Your task to perform on an android device: open a bookmark in the chrome app Image 0: 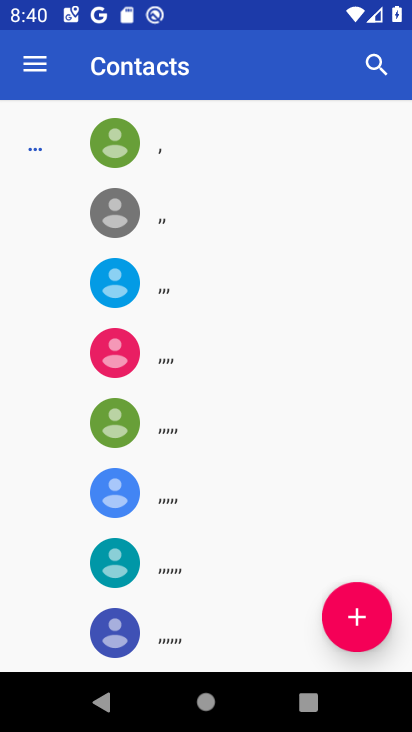
Step 0: press home button
Your task to perform on an android device: open a bookmark in the chrome app Image 1: 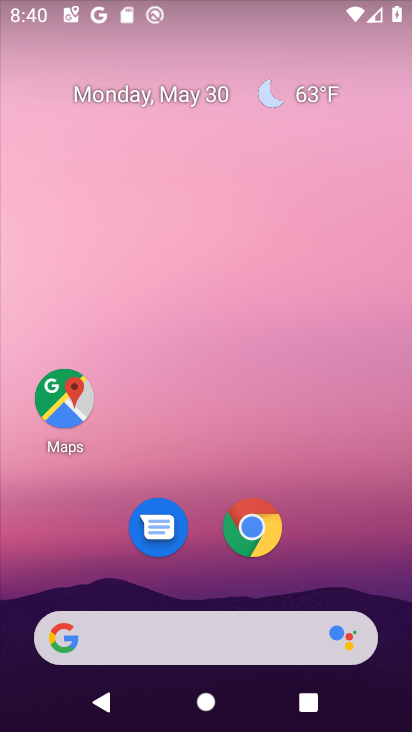
Step 1: click (251, 522)
Your task to perform on an android device: open a bookmark in the chrome app Image 2: 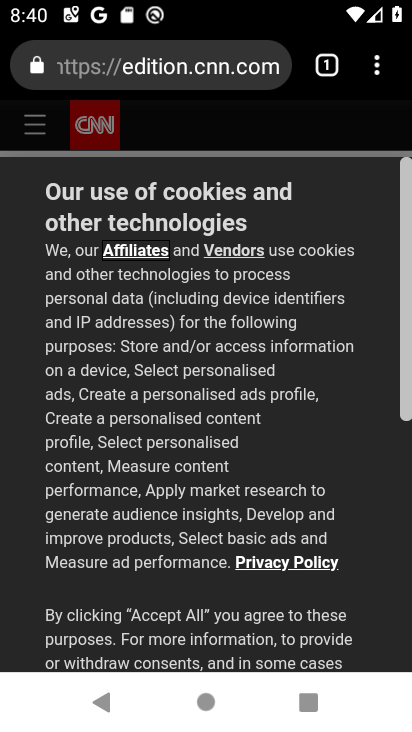
Step 2: click (375, 65)
Your task to perform on an android device: open a bookmark in the chrome app Image 3: 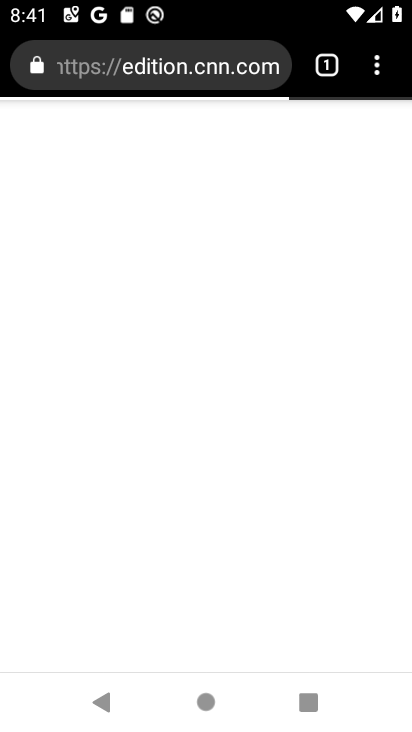
Step 3: click (375, 67)
Your task to perform on an android device: open a bookmark in the chrome app Image 4: 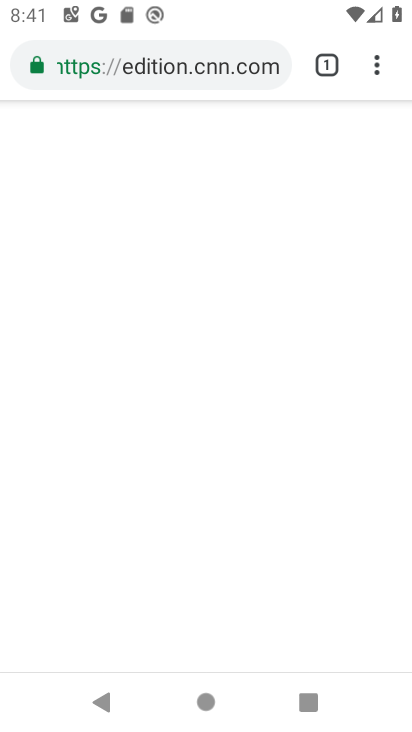
Step 4: click (392, 60)
Your task to perform on an android device: open a bookmark in the chrome app Image 5: 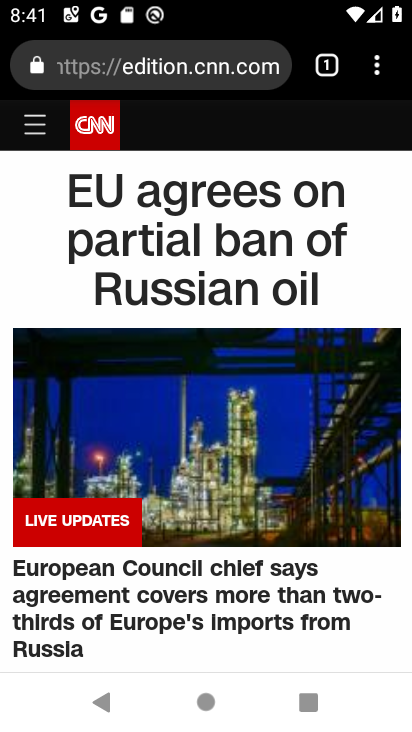
Step 5: click (383, 62)
Your task to perform on an android device: open a bookmark in the chrome app Image 6: 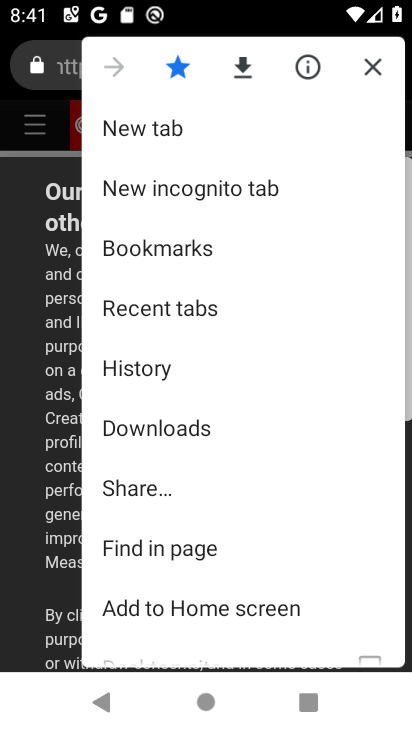
Step 6: click (179, 237)
Your task to perform on an android device: open a bookmark in the chrome app Image 7: 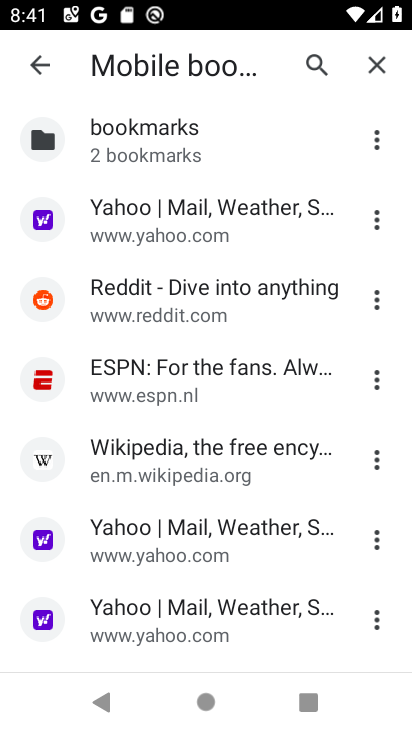
Step 7: task complete